Your task to perform on an android device: Open calendar and show me the fourth week of next month Image 0: 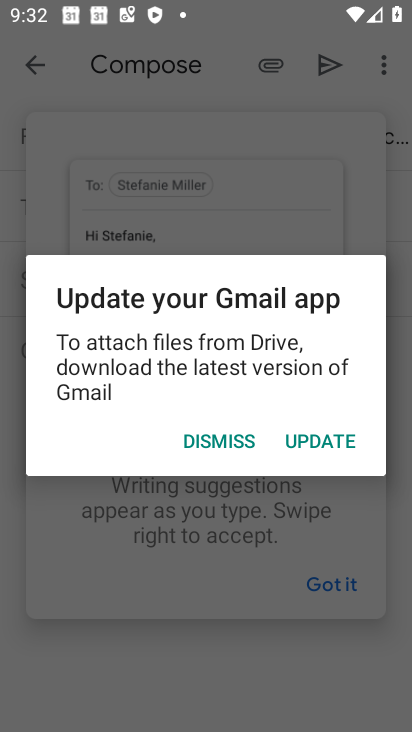
Step 0: press home button
Your task to perform on an android device: Open calendar and show me the fourth week of next month Image 1: 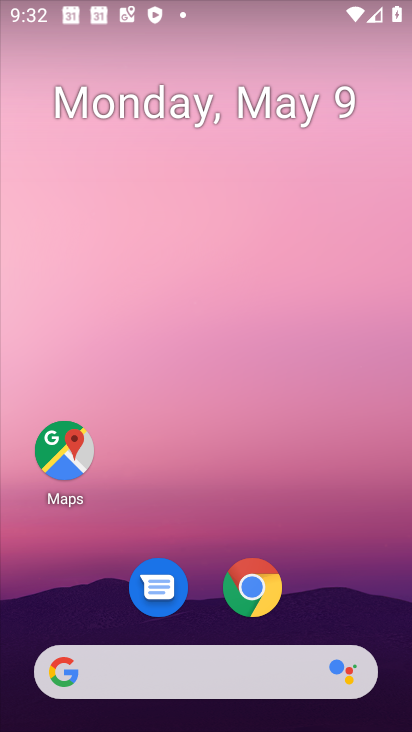
Step 1: click (119, 119)
Your task to perform on an android device: Open calendar and show me the fourth week of next month Image 2: 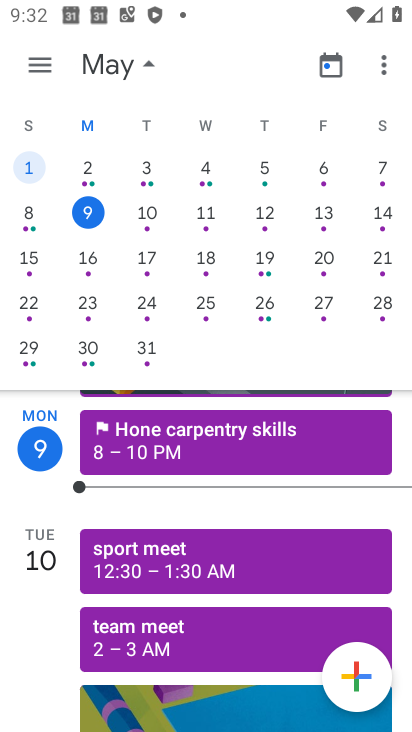
Step 2: drag from (375, 333) to (85, 259)
Your task to perform on an android device: Open calendar and show me the fourth week of next month Image 3: 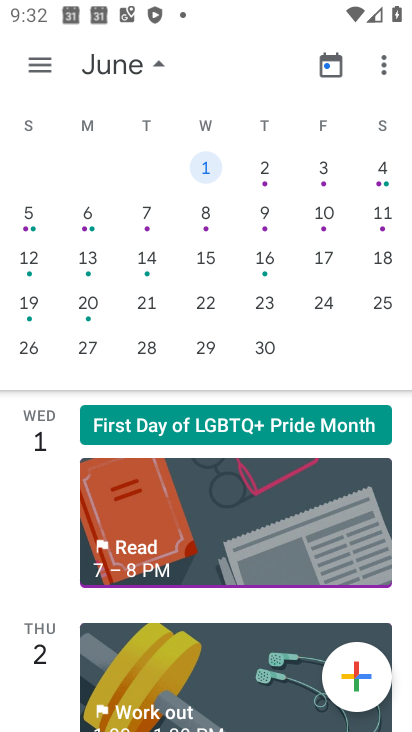
Step 3: drag from (376, 363) to (29, 288)
Your task to perform on an android device: Open calendar and show me the fourth week of next month Image 4: 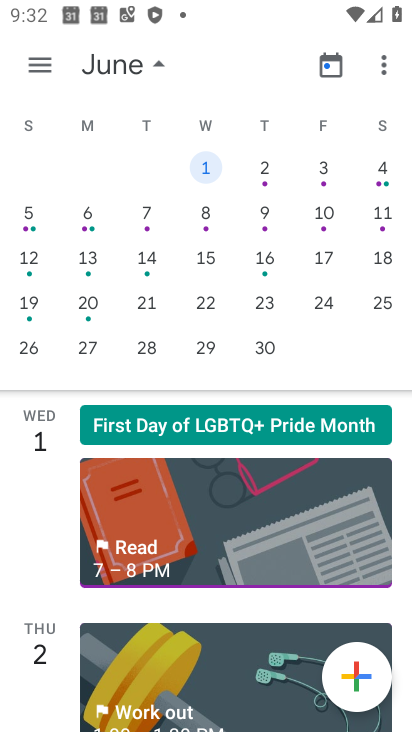
Step 4: click (145, 294)
Your task to perform on an android device: Open calendar and show me the fourth week of next month Image 5: 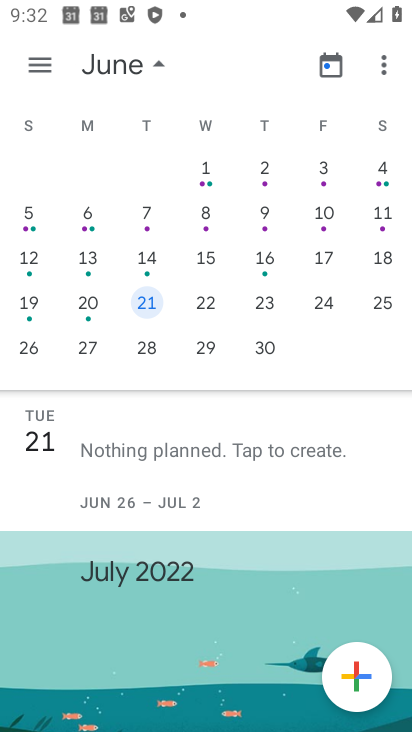
Step 5: task complete